Your task to perform on an android device: turn on showing notifications on the lock screen Image 0: 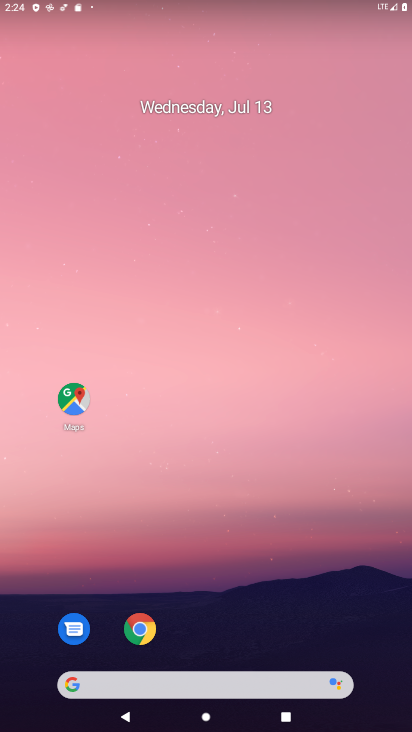
Step 0: drag from (286, 283) to (290, 91)
Your task to perform on an android device: turn on showing notifications on the lock screen Image 1: 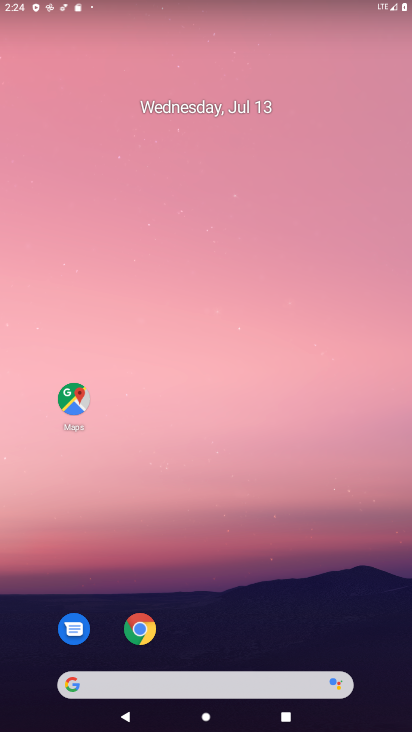
Step 1: drag from (230, 629) to (218, 63)
Your task to perform on an android device: turn on showing notifications on the lock screen Image 2: 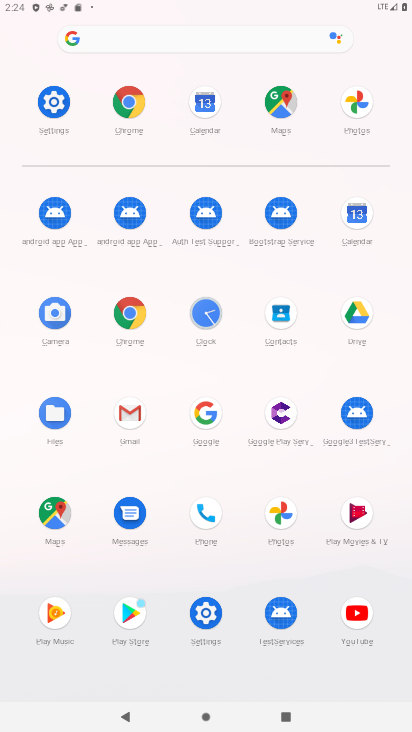
Step 2: click (69, 114)
Your task to perform on an android device: turn on showing notifications on the lock screen Image 3: 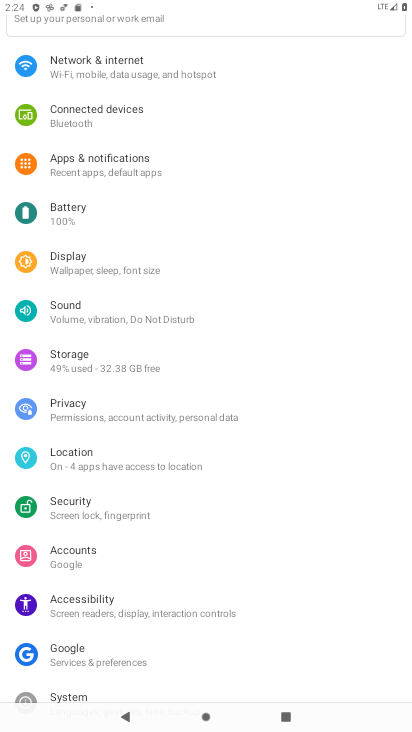
Step 3: click (139, 172)
Your task to perform on an android device: turn on showing notifications on the lock screen Image 4: 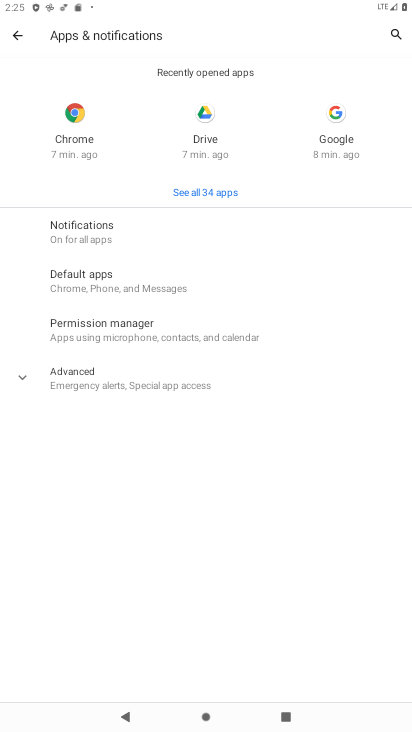
Step 4: click (124, 229)
Your task to perform on an android device: turn on showing notifications on the lock screen Image 5: 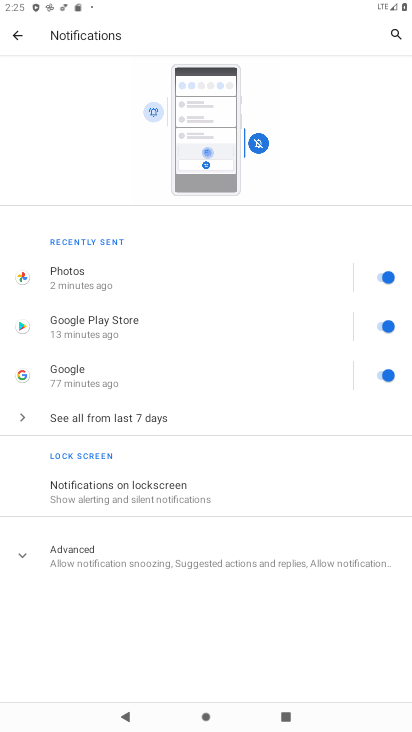
Step 5: click (112, 476)
Your task to perform on an android device: turn on showing notifications on the lock screen Image 6: 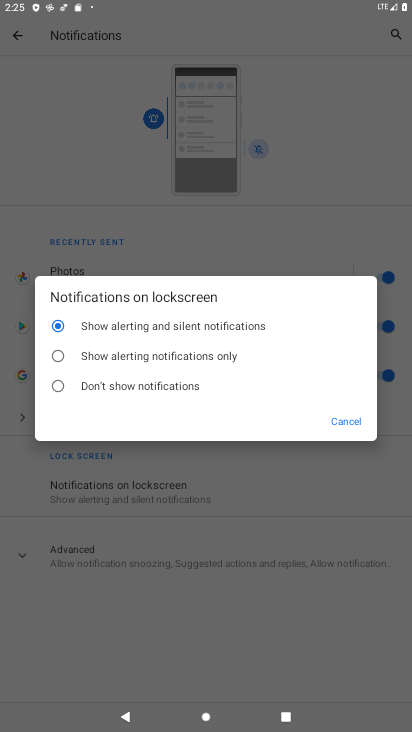
Step 6: click (201, 357)
Your task to perform on an android device: turn on showing notifications on the lock screen Image 7: 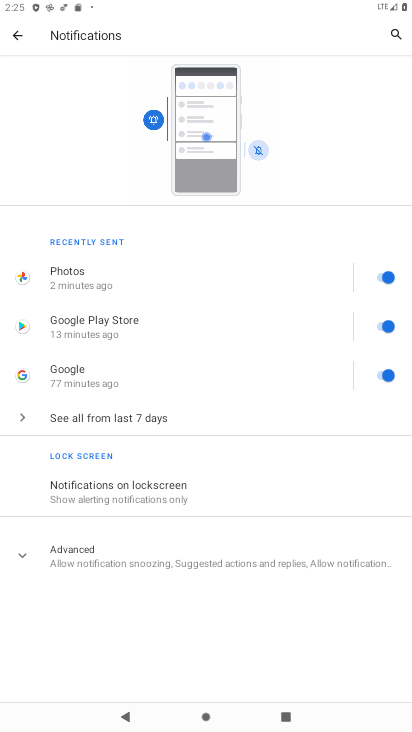
Step 7: task complete